Your task to perform on an android device: Open internet settings Image 0: 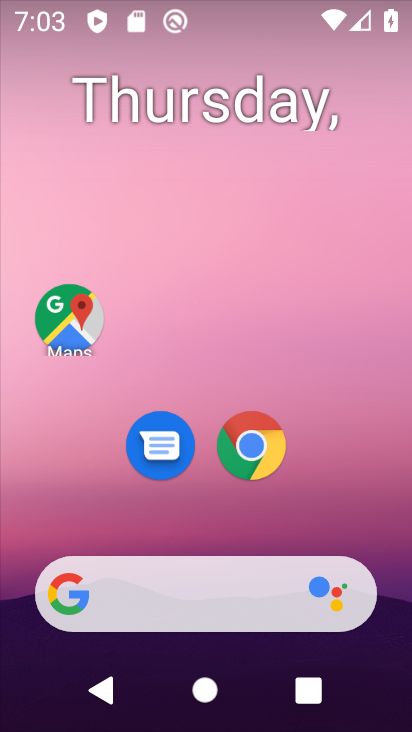
Step 0: drag from (307, 524) to (317, 104)
Your task to perform on an android device: Open internet settings Image 1: 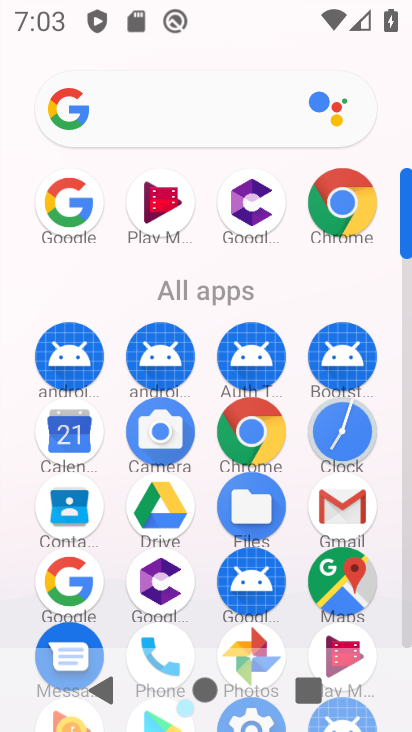
Step 1: drag from (209, 622) to (332, 151)
Your task to perform on an android device: Open internet settings Image 2: 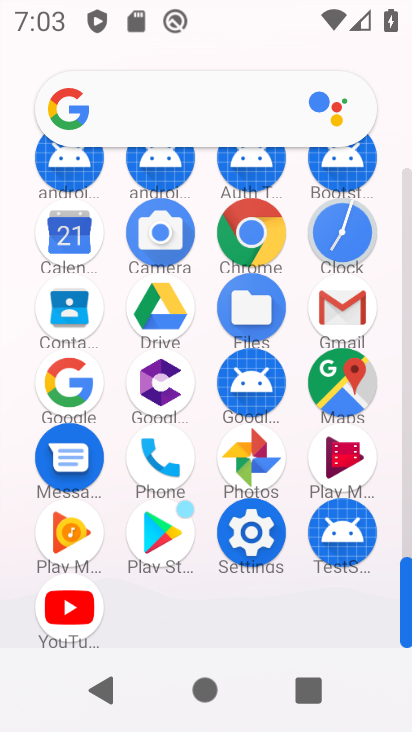
Step 2: click (213, 554)
Your task to perform on an android device: Open internet settings Image 3: 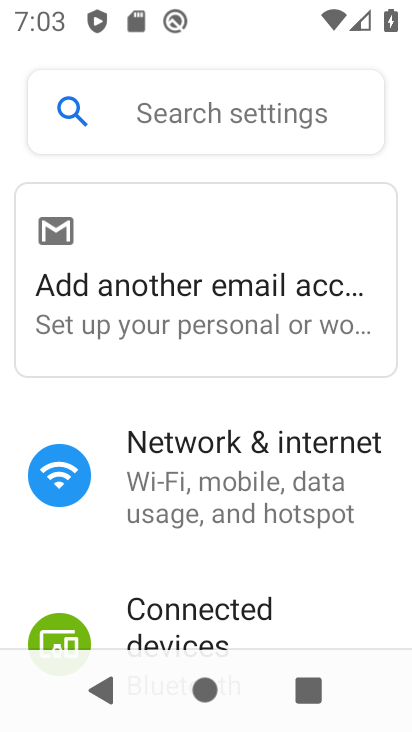
Step 3: click (247, 485)
Your task to perform on an android device: Open internet settings Image 4: 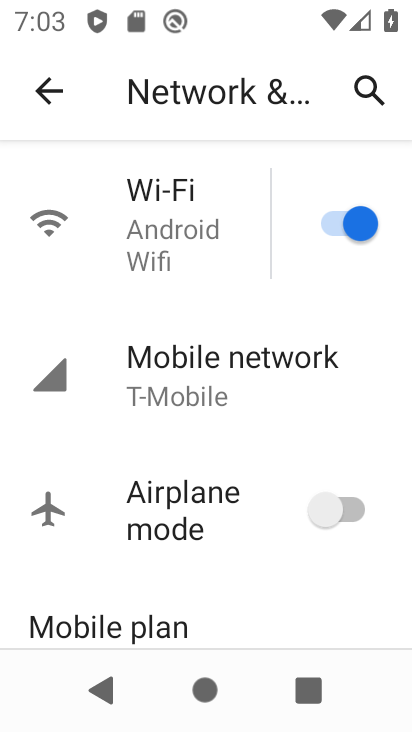
Step 4: task complete